Your task to perform on an android device: clear all cookies in the chrome app Image 0: 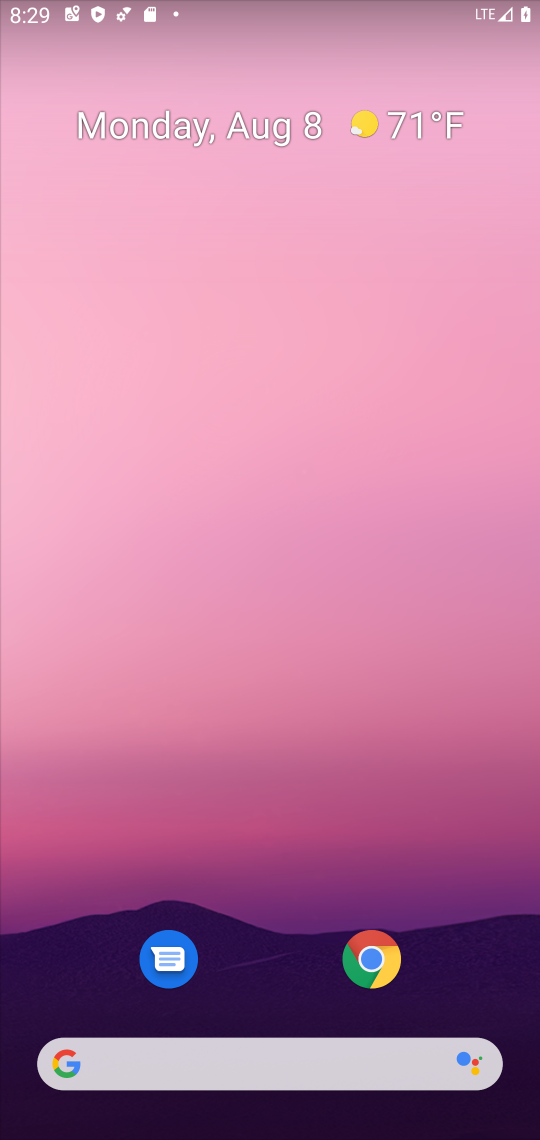
Step 0: drag from (484, 972) to (356, 64)
Your task to perform on an android device: clear all cookies in the chrome app Image 1: 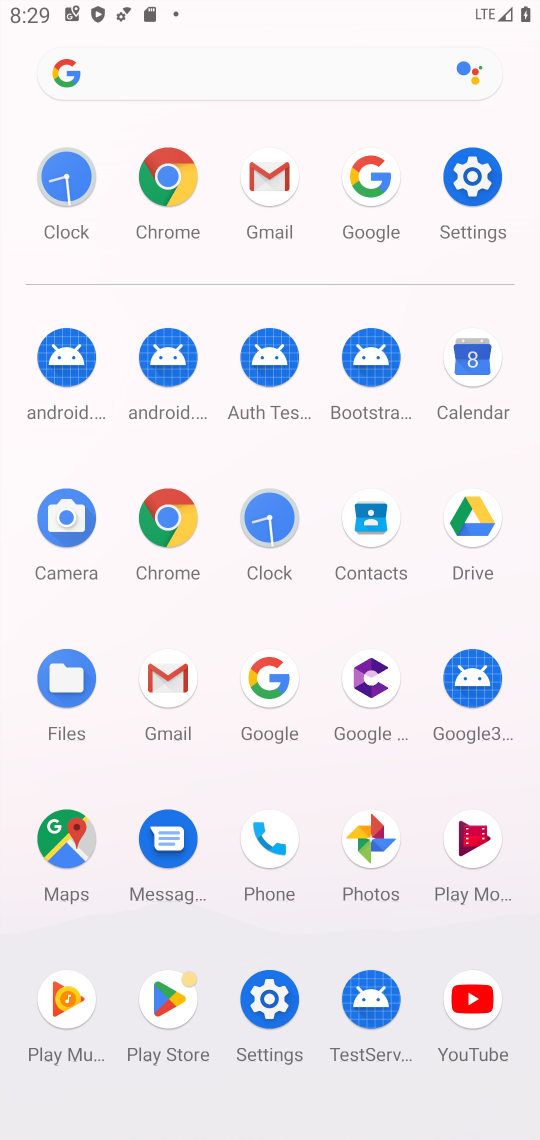
Step 1: click (157, 516)
Your task to perform on an android device: clear all cookies in the chrome app Image 2: 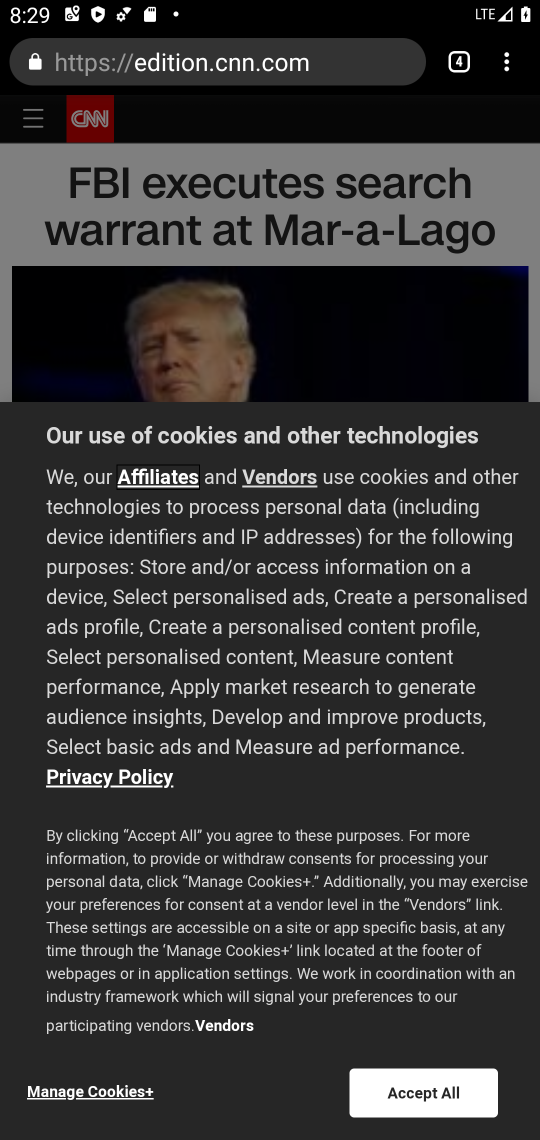
Step 2: click (157, 516)
Your task to perform on an android device: clear all cookies in the chrome app Image 3: 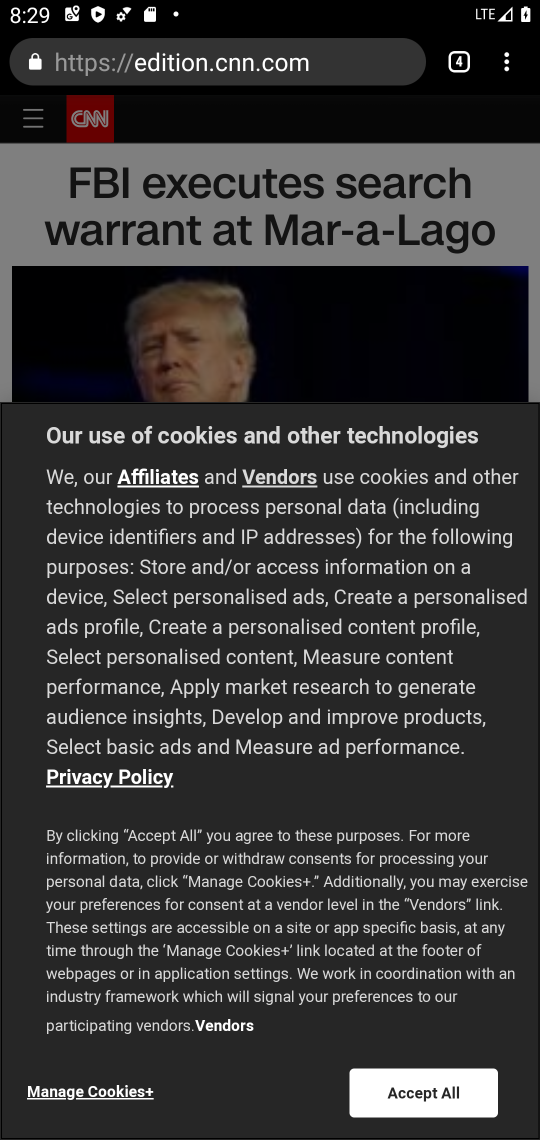
Step 3: press back button
Your task to perform on an android device: clear all cookies in the chrome app Image 4: 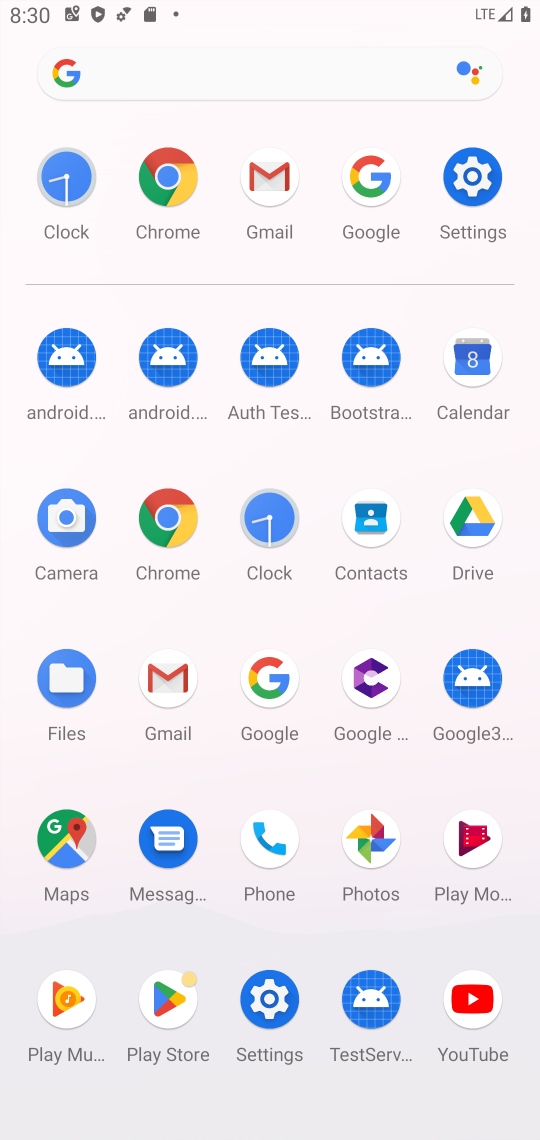
Step 4: click (176, 517)
Your task to perform on an android device: clear all cookies in the chrome app Image 5: 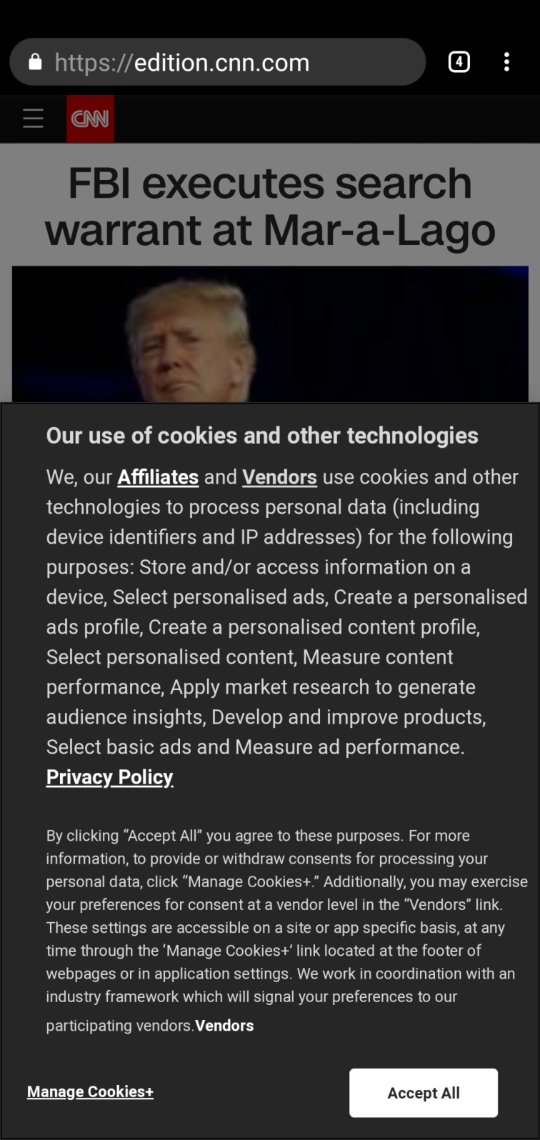
Step 5: click (512, 53)
Your task to perform on an android device: clear all cookies in the chrome app Image 6: 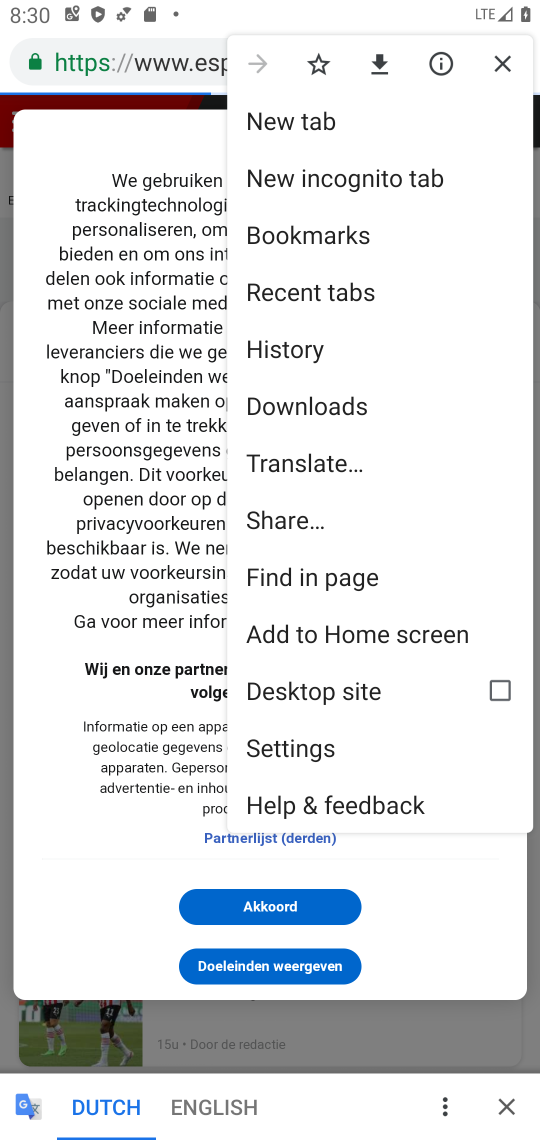
Step 6: click (271, 361)
Your task to perform on an android device: clear all cookies in the chrome app Image 7: 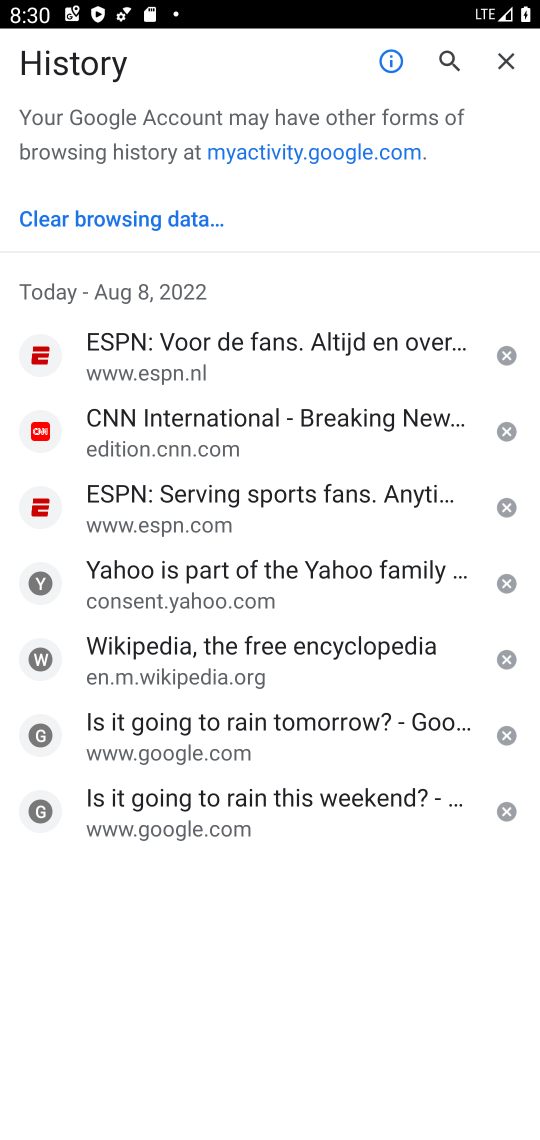
Step 7: click (103, 235)
Your task to perform on an android device: clear all cookies in the chrome app Image 8: 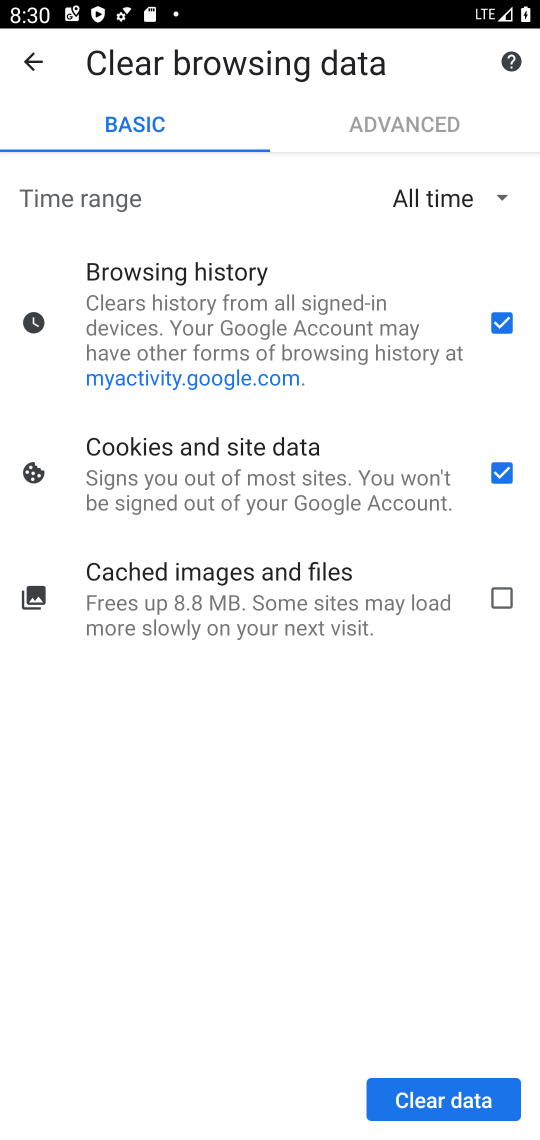
Step 8: click (442, 1086)
Your task to perform on an android device: clear all cookies in the chrome app Image 9: 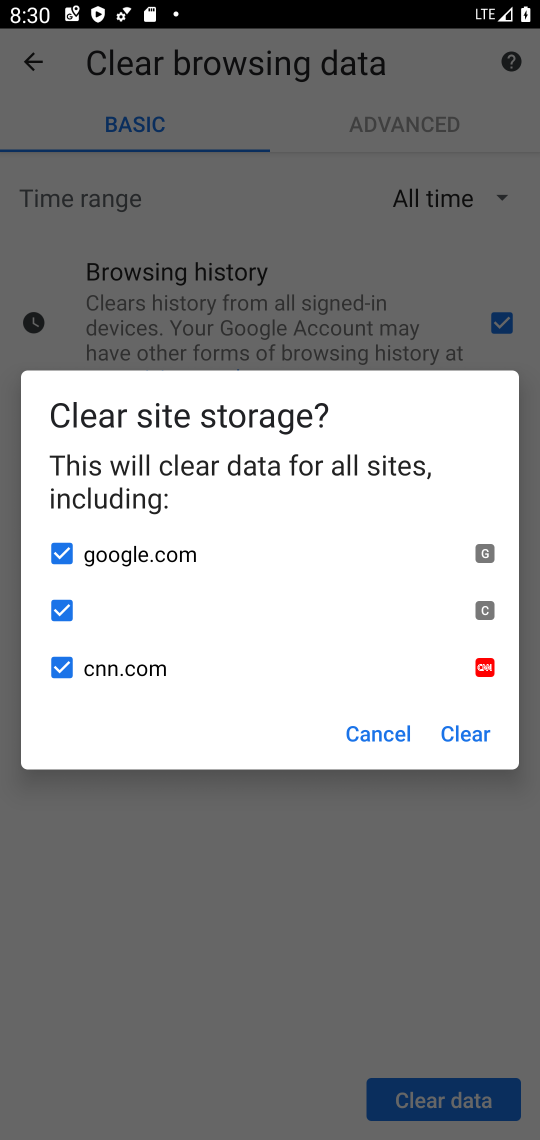
Step 9: click (453, 743)
Your task to perform on an android device: clear all cookies in the chrome app Image 10: 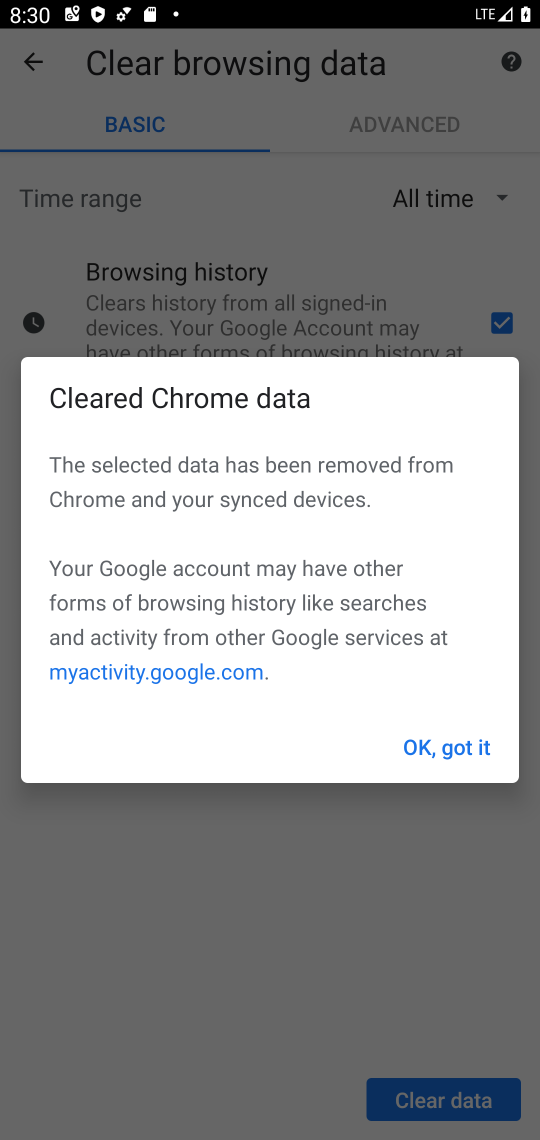
Step 10: click (445, 742)
Your task to perform on an android device: clear all cookies in the chrome app Image 11: 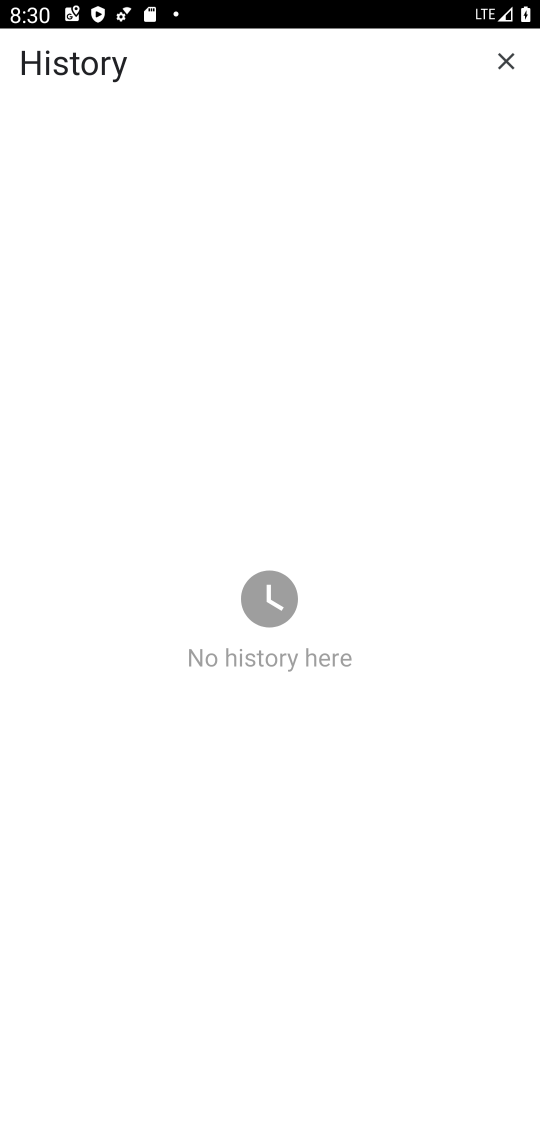
Step 11: task complete